Your task to perform on an android device: open app "Microsoft Authenticator" Image 0: 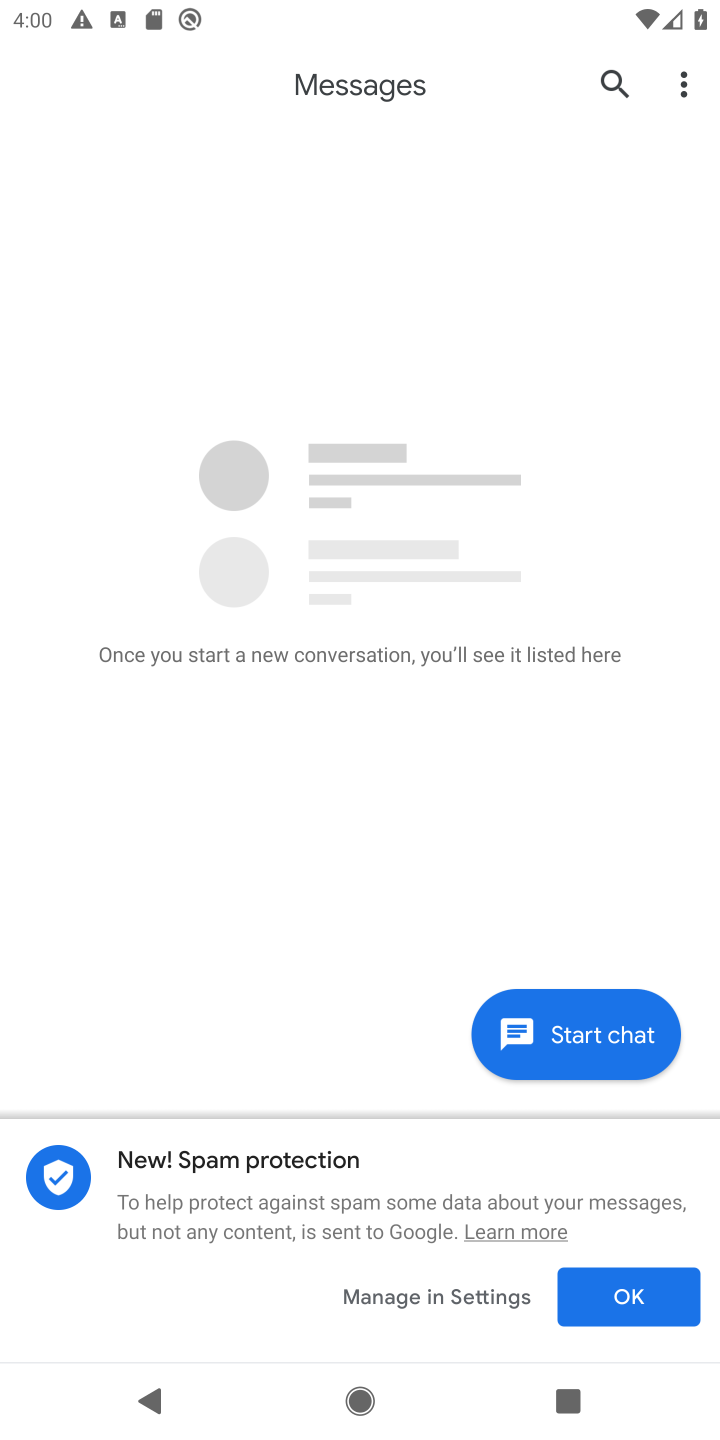
Step 0: press home button
Your task to perform on an android device: open app "Microsoft Authenticator" Image 1: 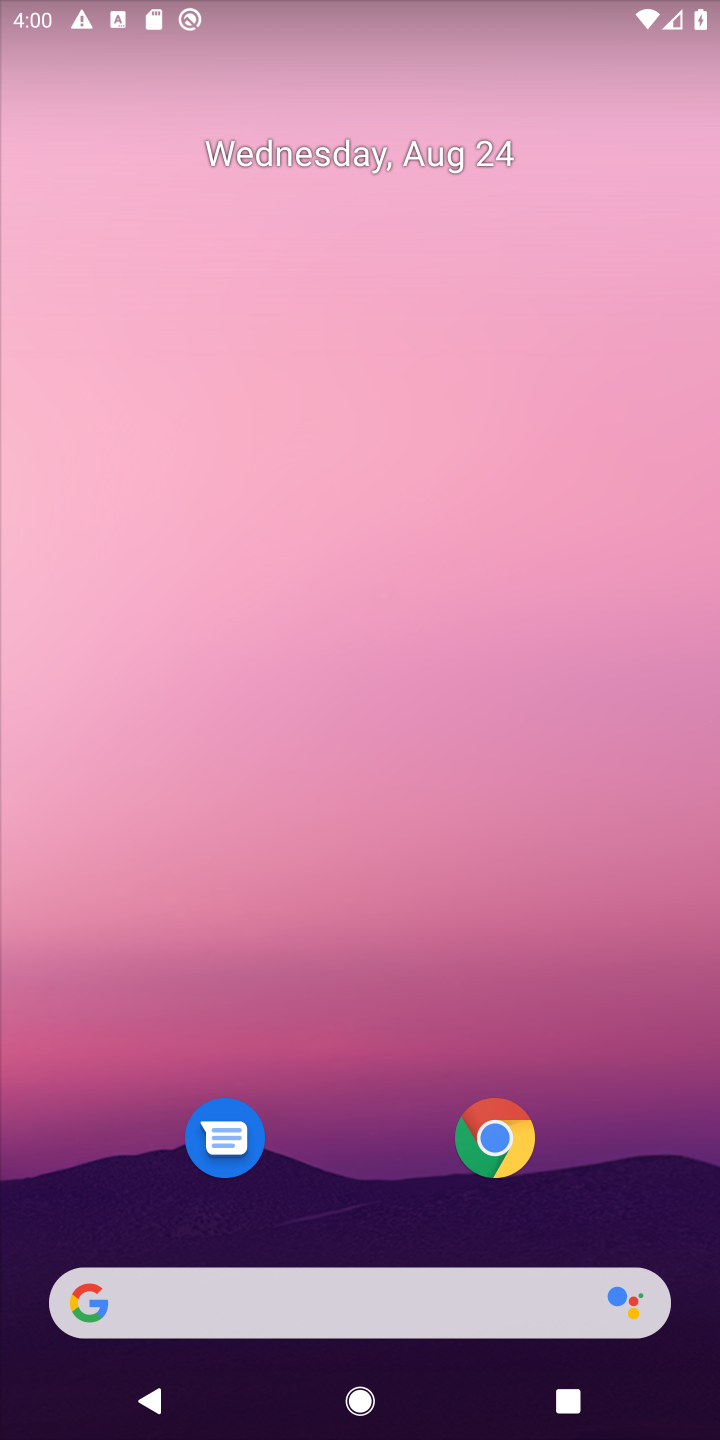
Step 1: drag from (363, 1202) to (367, 86)
Your task to perform on an android device: open app "Microsoft Authenticator" Image 2: 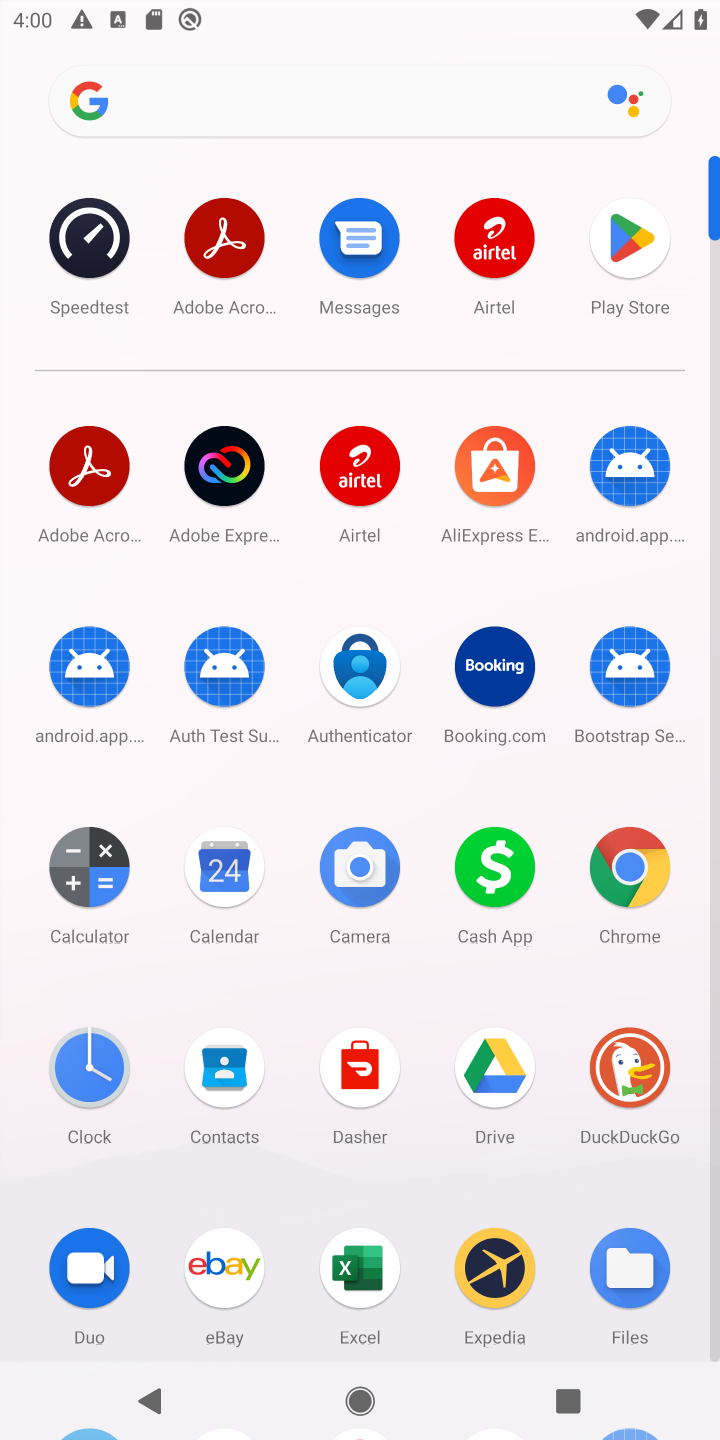
Step 2: click (621, 249)
Your task to perform on an android device: open app "Microsoft Authenticator" Image 3: 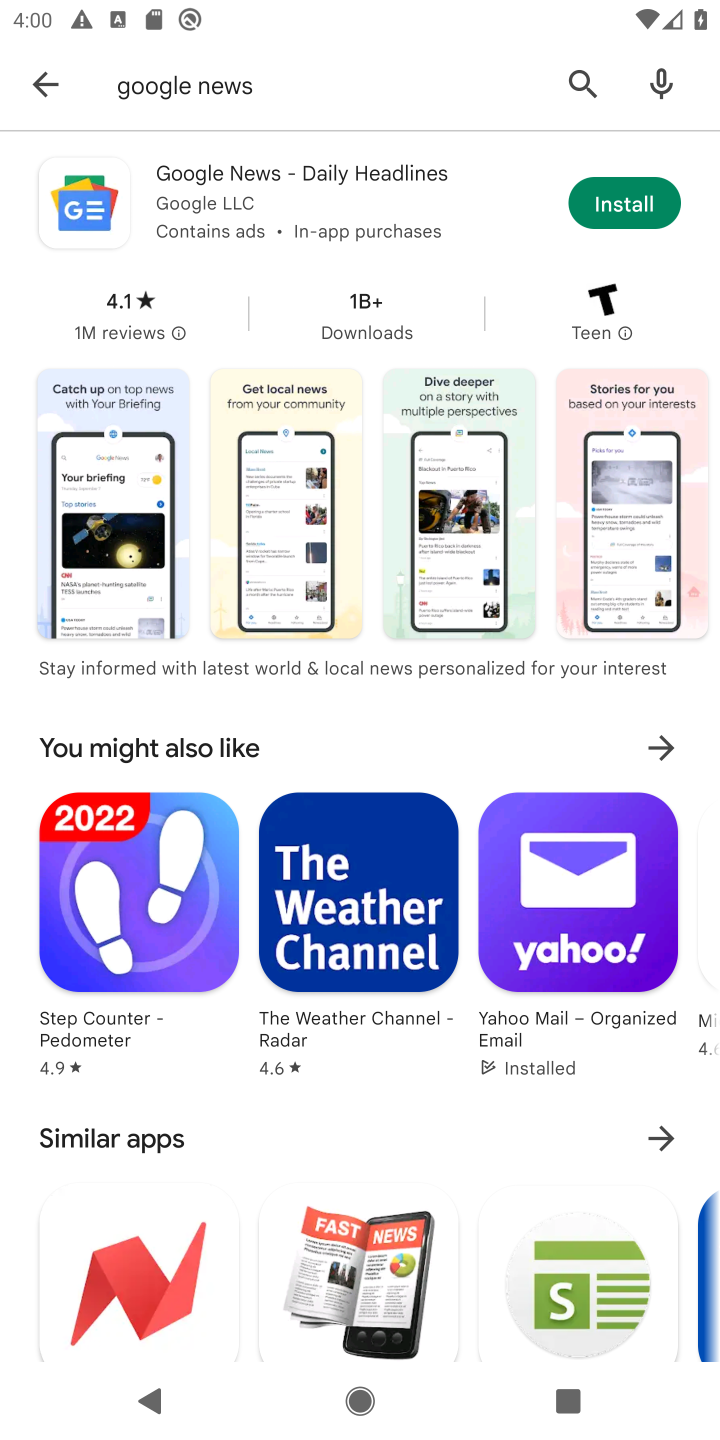
Step 3: click (581, 77)
Your task to perform on an android device: open app "Microsoft Authenticator" Image 4: 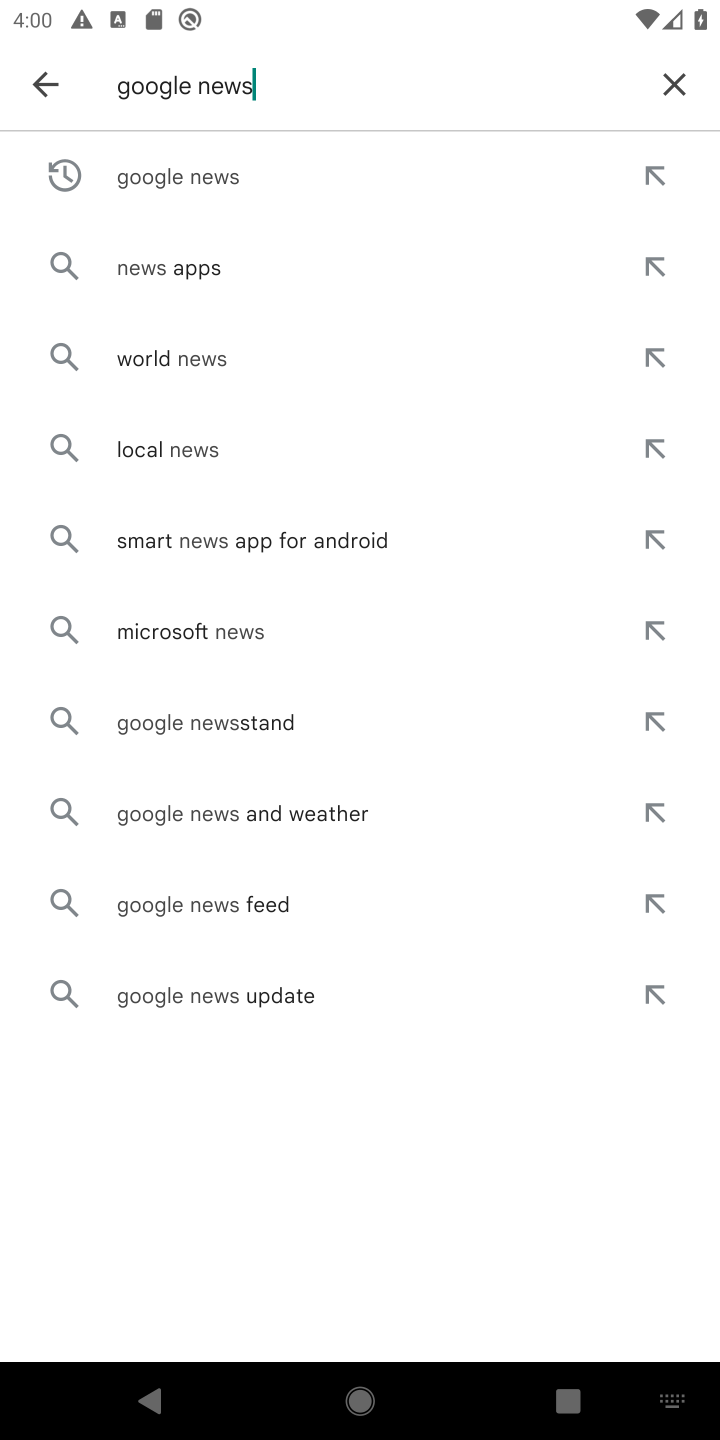
Step 4: click (674, 89)
Your task to perform on an android device: open app "Microsoft Authenticator" Image 5: 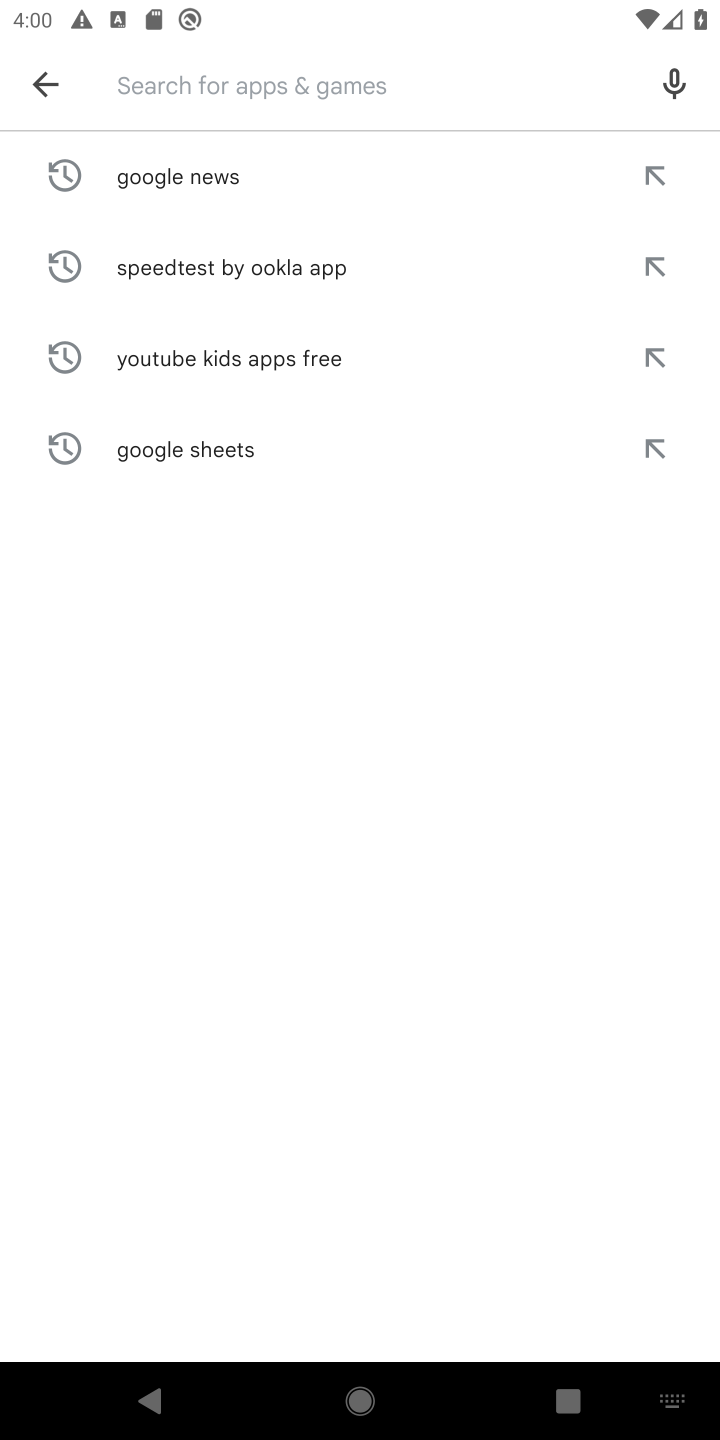
Step 5: type "Microsoft Authenticator"
Your task to perform on an android device: open app "Microsoft Authenticator" Image 6: 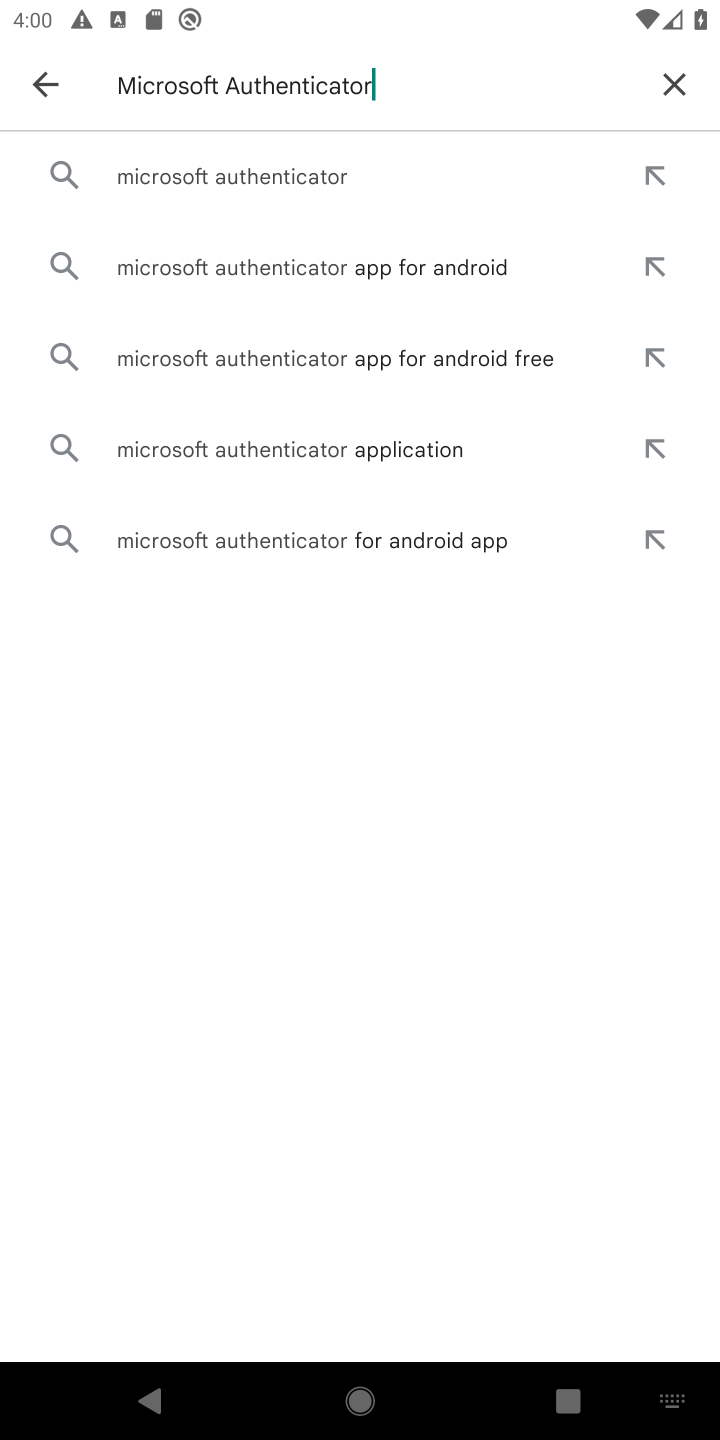
Step 6: click (167, 180)
Your task to perform on an android device: open app "Microsoft Authenticator" Image 7: 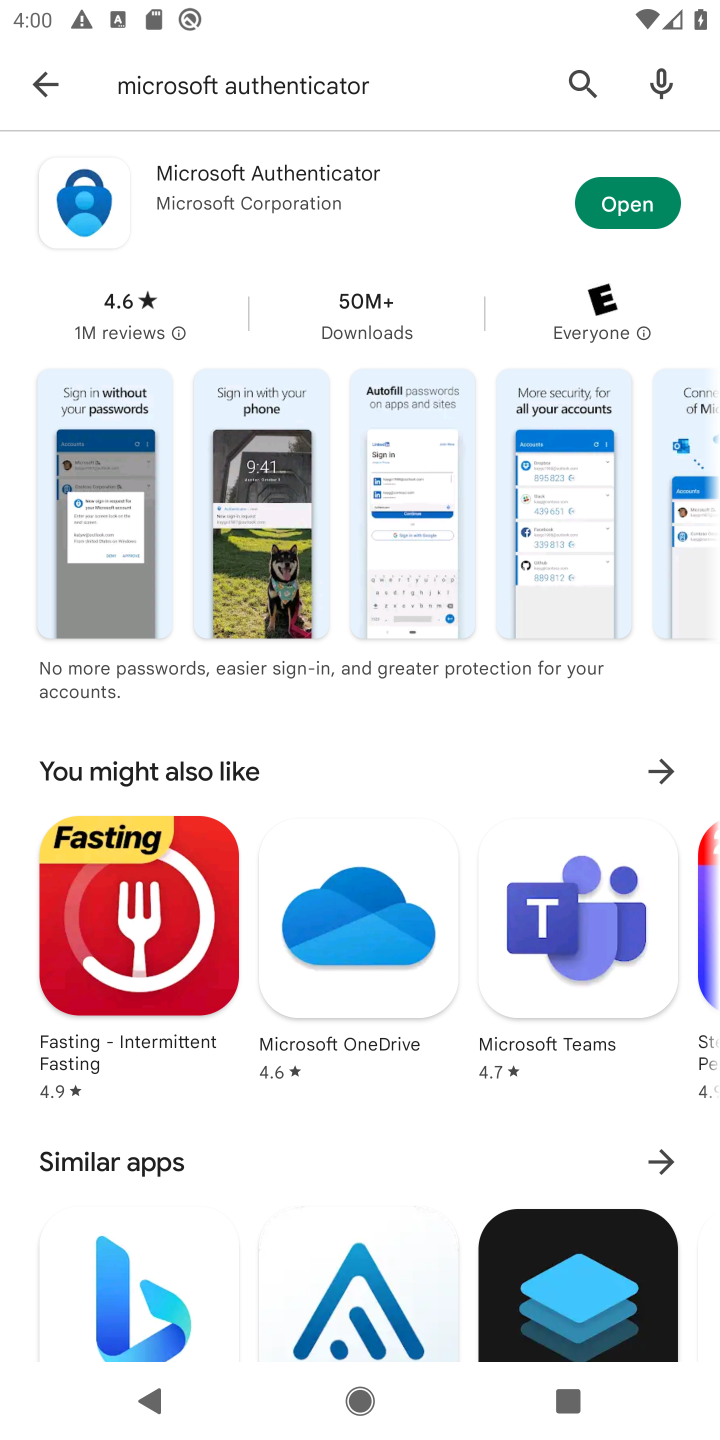
Step 7: click (617, 205)
Your task to perform on an android device: open app "Microsoft Authenticator" Image 8: 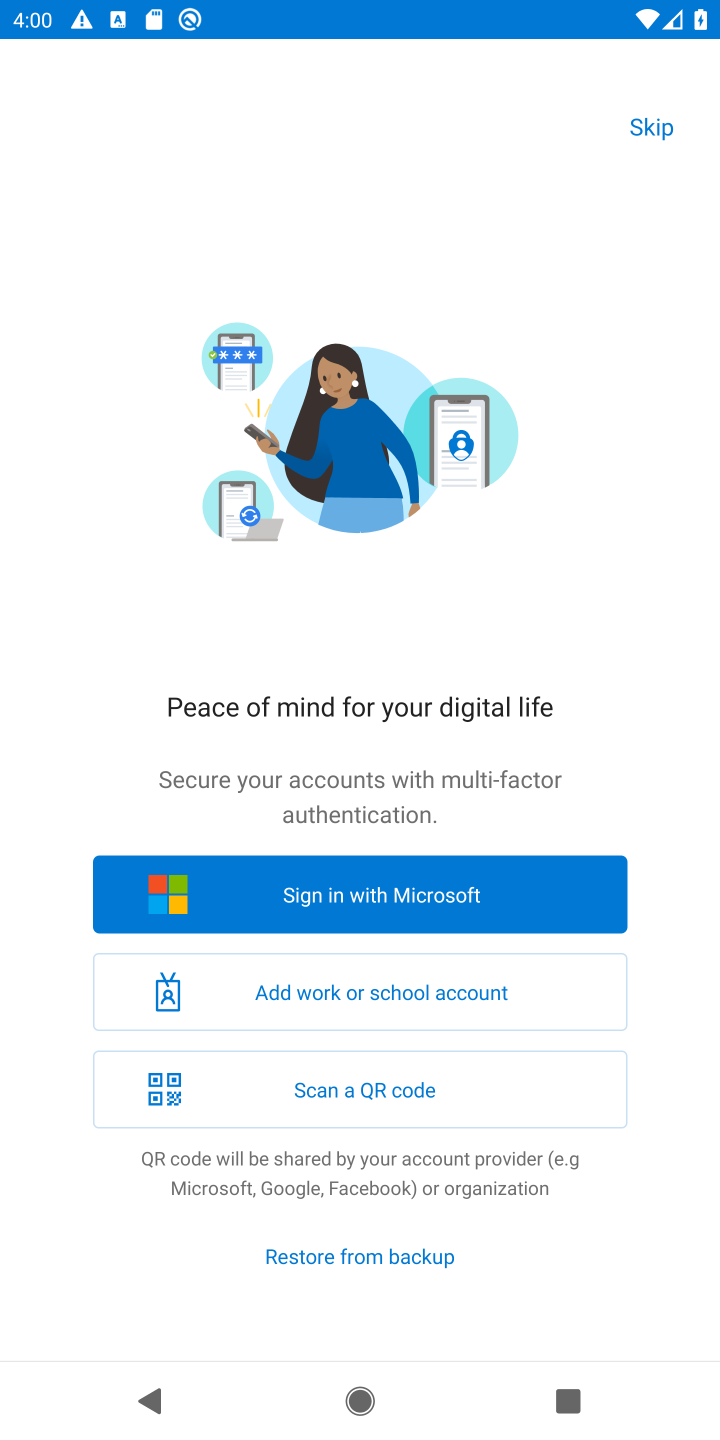
Step 8: task complete